Your task to perform on an android device: Is it going to rain today? Image 0: 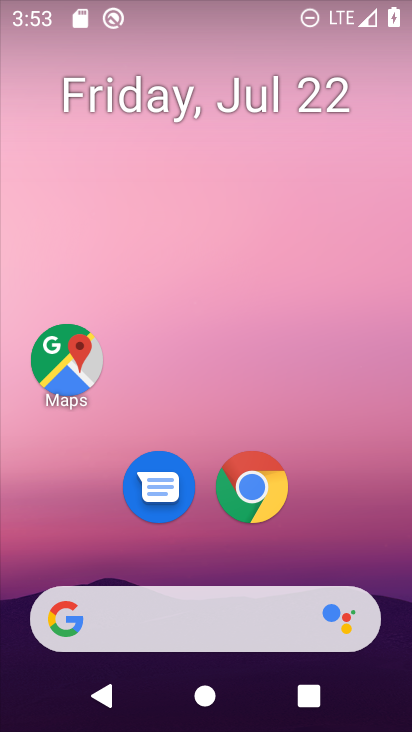
Step 0: drag from (229, 519) to (273, 0)
Your task to perform on an android device: Is it going to rain today? Image 1: 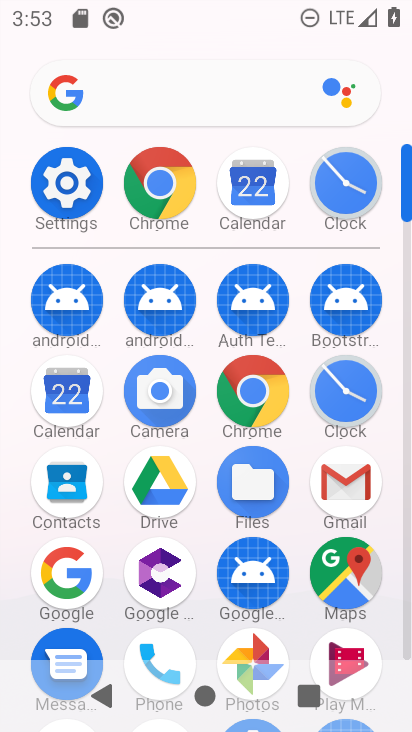
Step 1: click (48, 395)
Your task to perform on an android device: Is it going to rain today? Image 2: 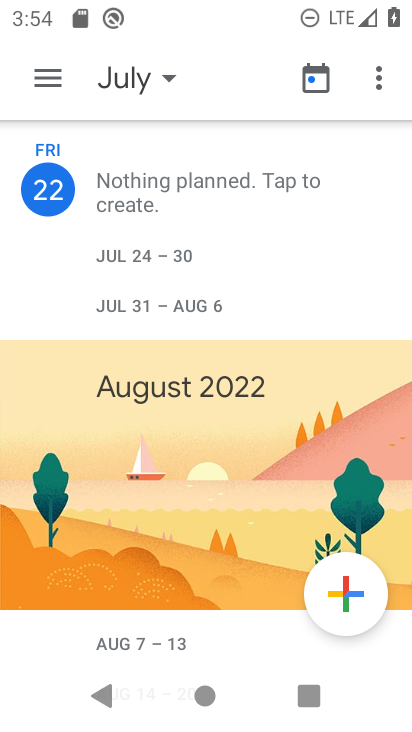
Step 2: press back button
Your task to perform on an android device: Is it going to rain today? Image 3: 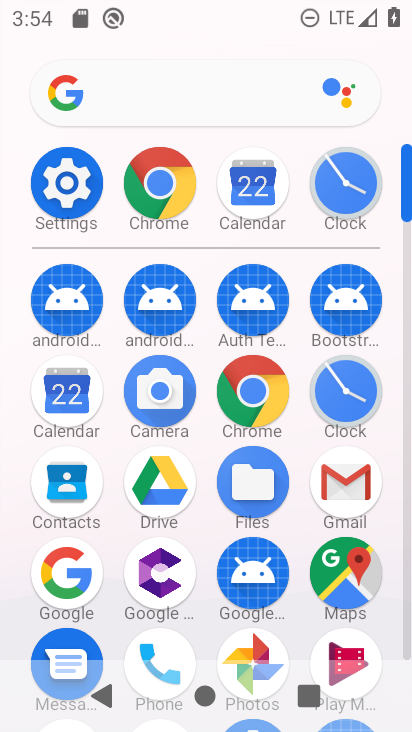
Step 3: click (168, 89)
Your task to perform on an android device: Is it going to rain today? Image 4: 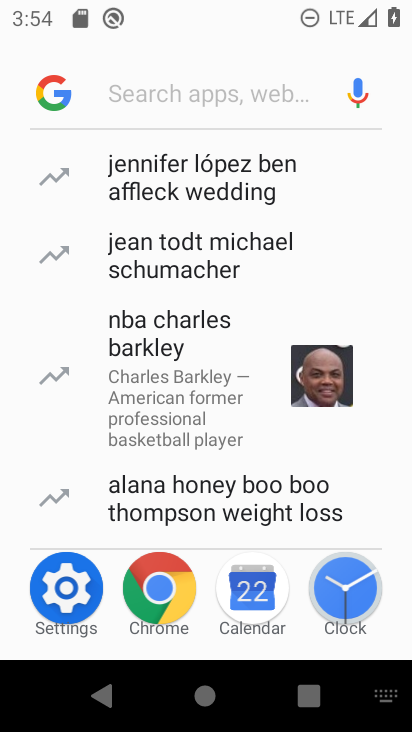
Step 4: type "weather"
Your task to perform on an android device: Is it going to rain today? Image 5: 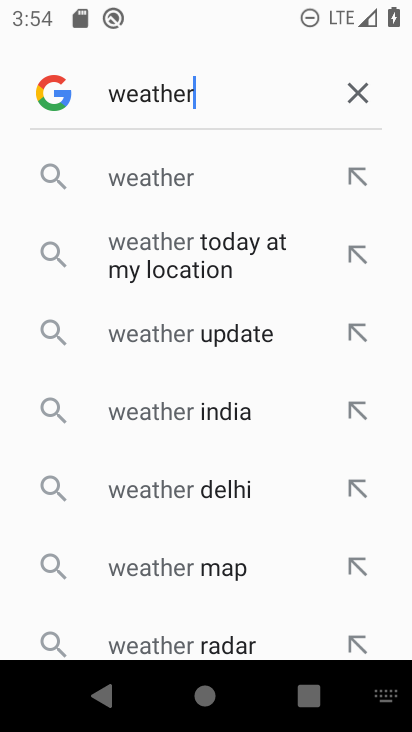
Step 5: click (190, 178)
Your task to perform on an android device: Is it going to rain today? Image 6: 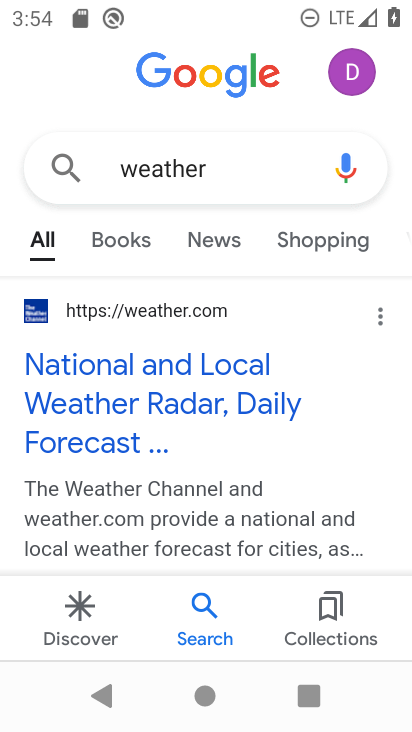
Step 6: click (103, 390)
Your task to perform on an android device: Is it going to rain today? Image 7: 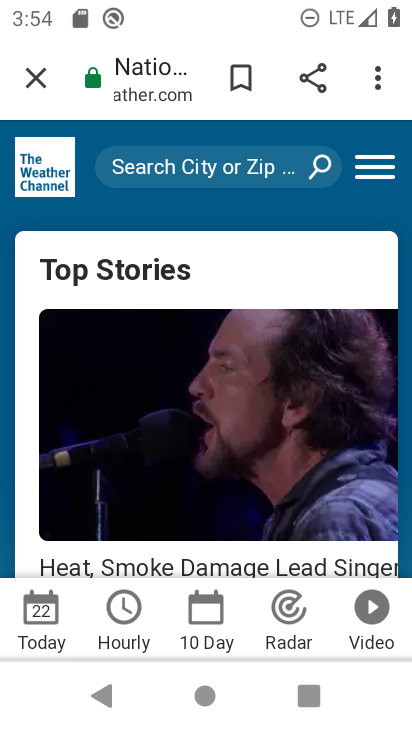
Step 7: click (48, 610)
Your task to perform on an android device: Is it going to rain today? Image 8: 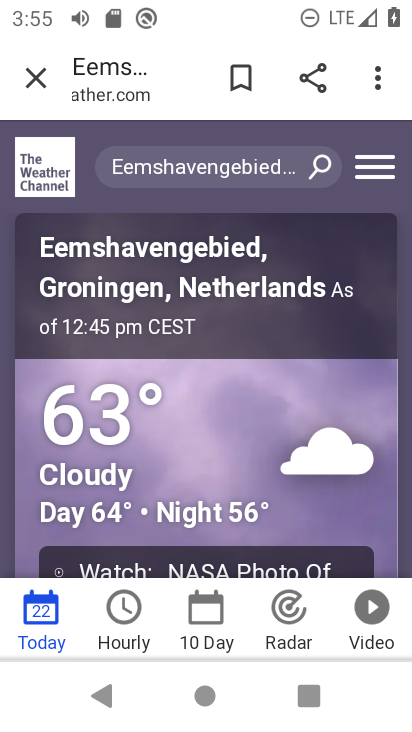
Step 8: task complete